Your task to perform on an android device: install app "Pandora - Music & Podcasts" Image 0: 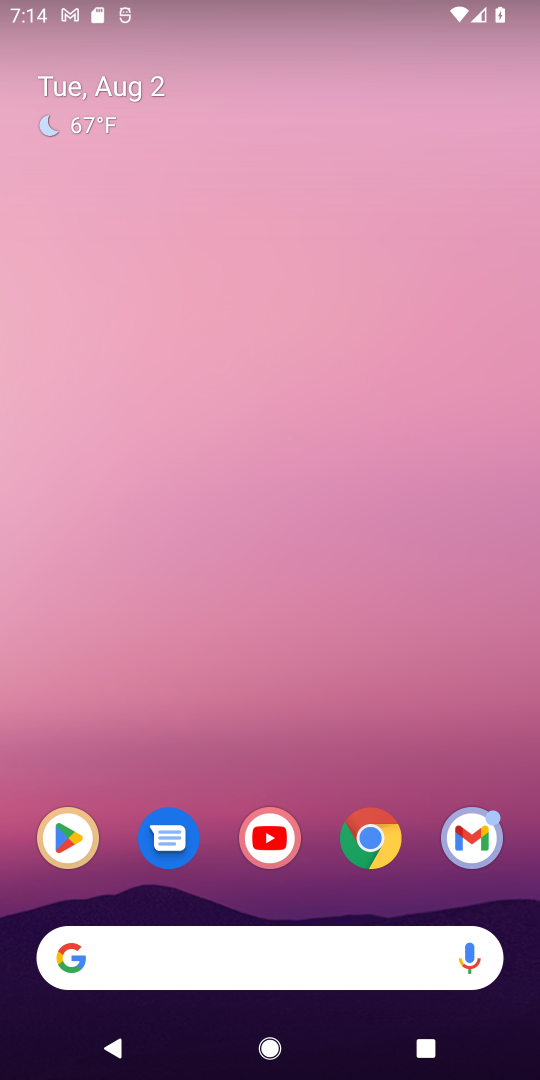
Step 0: click (68, 852)
Your task to perform on an android device: install app "Pandora - Music & Podcasts" Image 1: 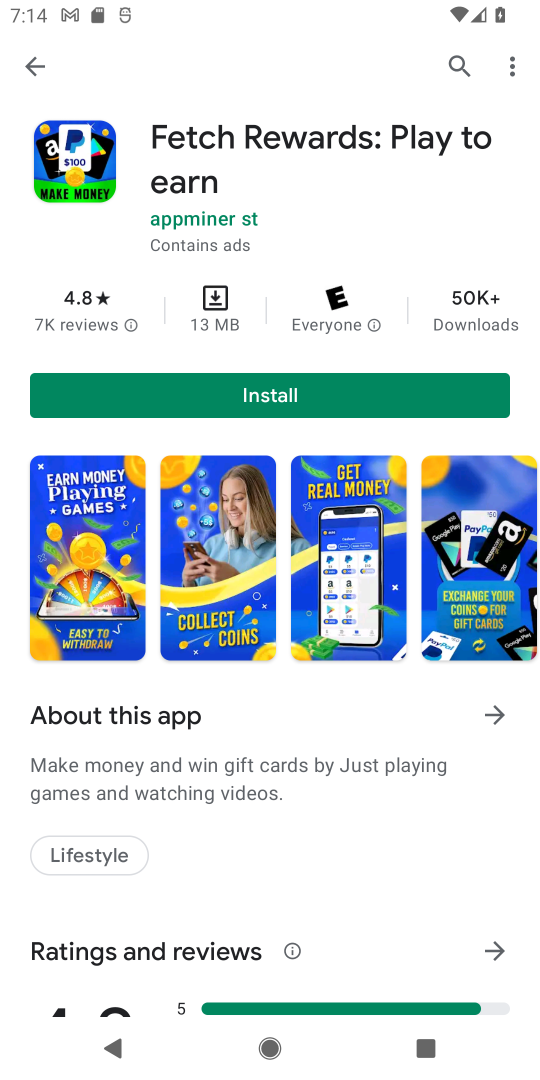
Step 1: click (456, 58)
Your task to perform on an android device: install app "Pandora - Music & Podcasts" Image 2: 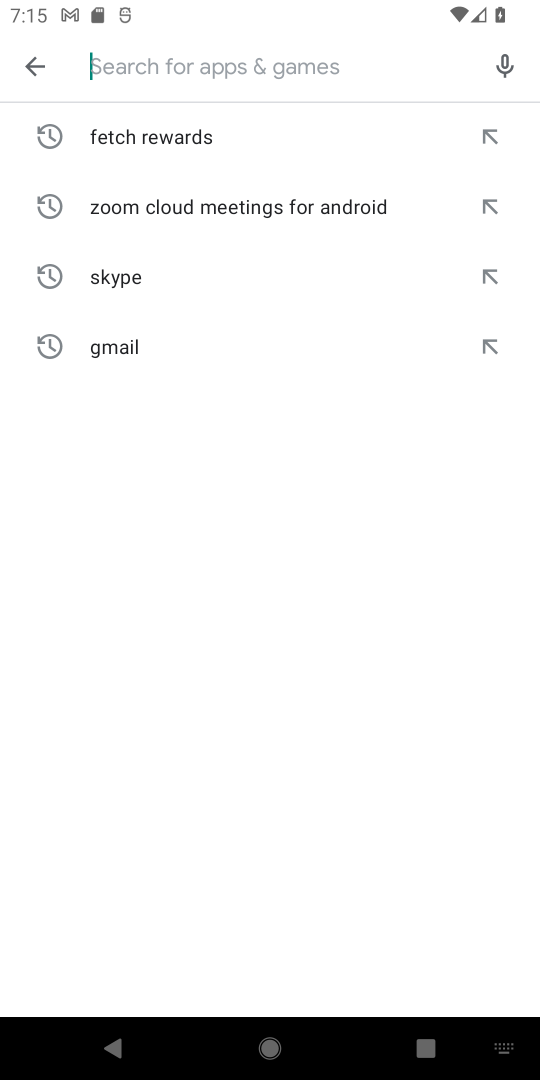
Step 2: type "pandora - music & podcasts"
Your task to perform on an android device: install app "Pandora - Music & Podcasts" Image 3: 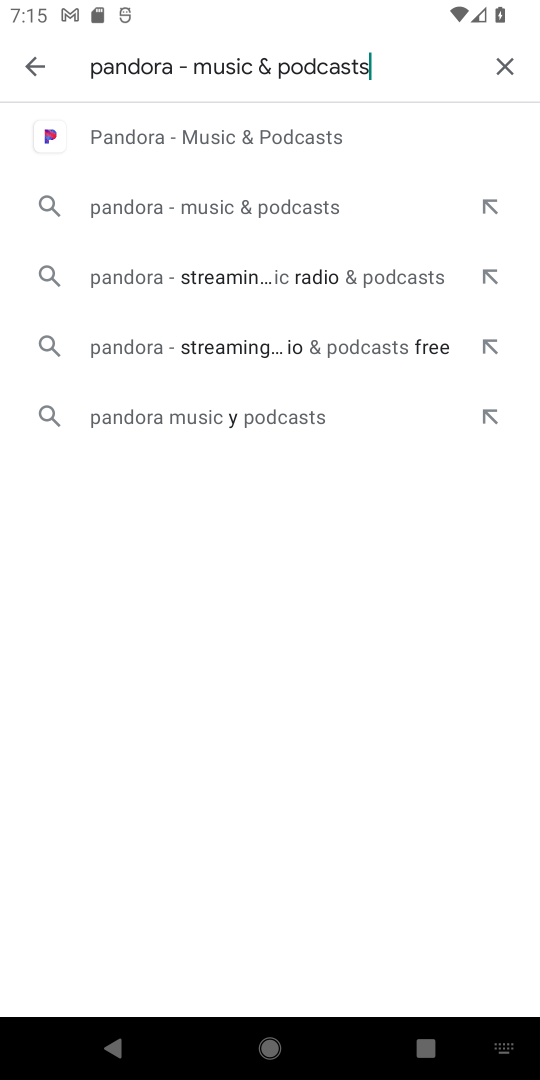
Step 3: click (215, 120)
Your task to perform on an android device: install app "Pandora - Music & Podcasts" Image 4: 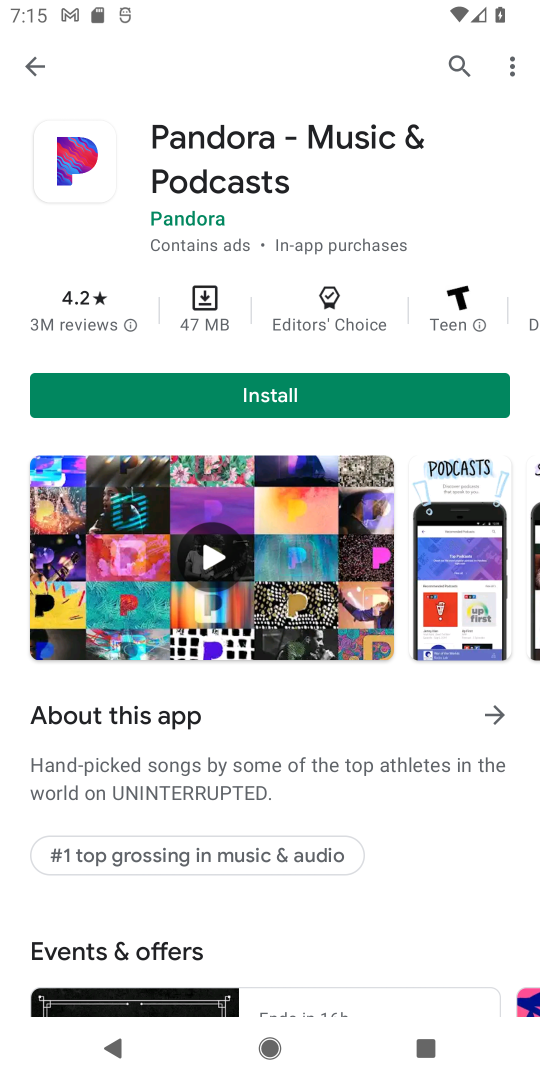
Step 4: click (212, 383)
Your task to perform on an android device: install app "Pandora - Music & Podcasts" Image 5: 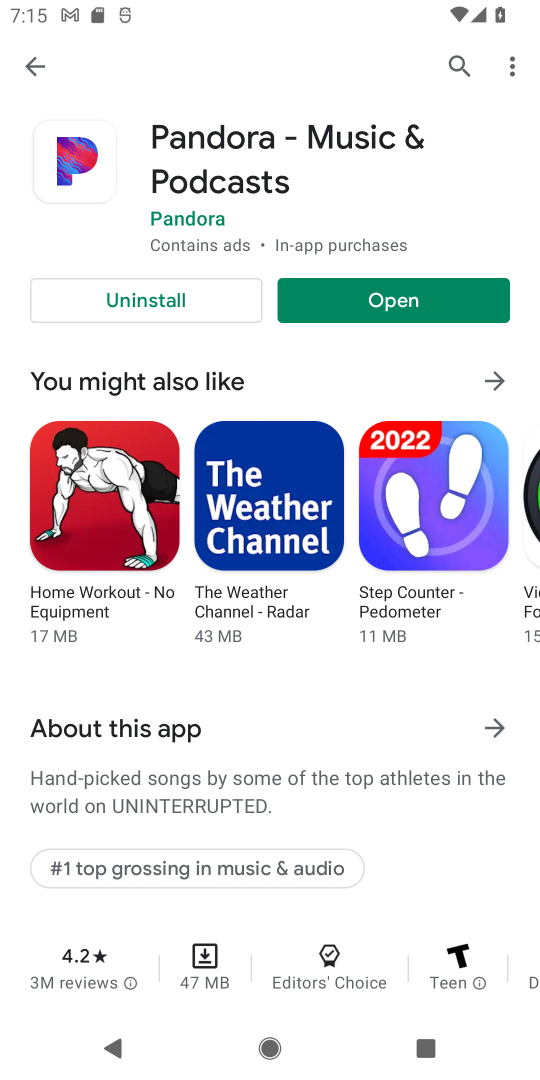
Step 5: task complete